Your task to perform on an android device: Add "asus zenbook" to the cart on amazon.com Image 0: 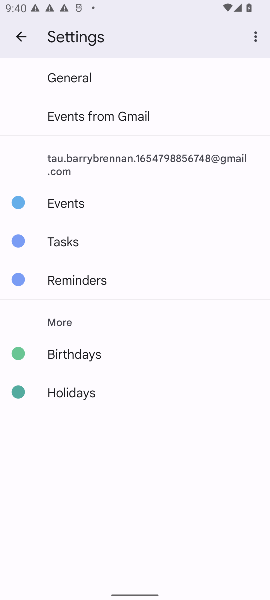
Step 0: press home button
Your task to perform on an android device: Add "asus zenbook" to the cart on amazon.com Image 1: 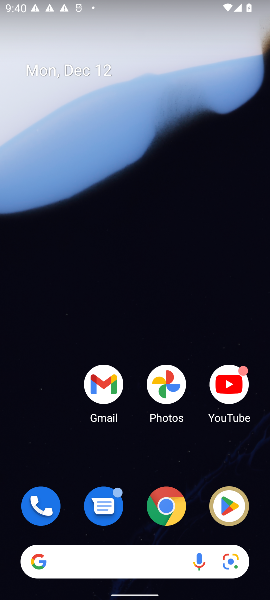
Step 1: click (164, 523)
Your task to perform on an android device: Add "asus zenbook" to the cart on amazon.com Image 2: 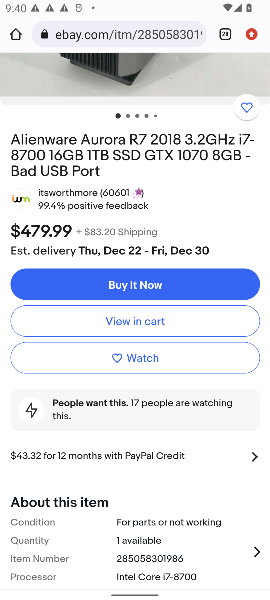
Step 2: press home button
Your task to perform on an android device: Add "asus zenbook" to the cart on amazon.com Image 3: 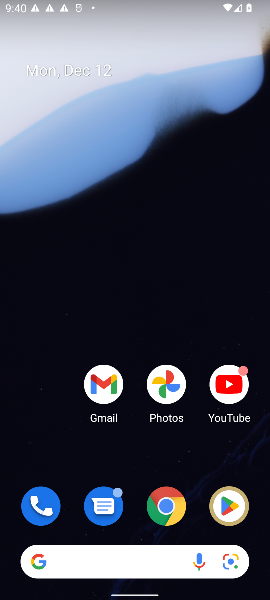
Step 3: click (160, 523)
Your task to perform on an android device: Add "asus zenbook" to the cart on amazon.com Image 4: 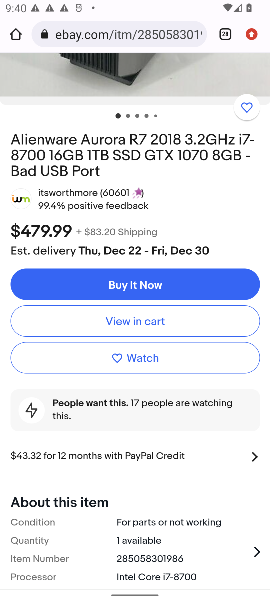
Step 4: click (144, 19)
Your task to perform on an android device: Add "asus zenbook" to the cart on amazon.com Image 5: 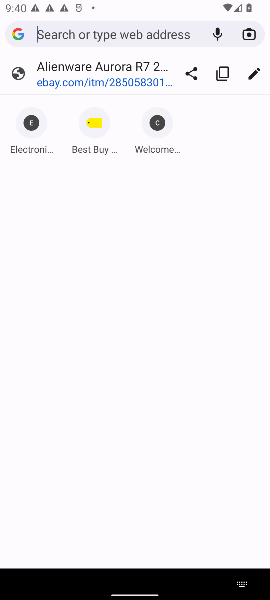
Step 5: type "asus zenbook"
Your task to perform on an android device: Add "asus zenbook" to the cart on amazon.com Image 6: 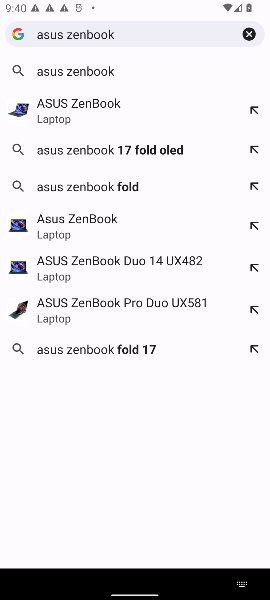
Step 6: click (249, 36)
Your task to perform on an android device: Add "asus zenbook" to the cart on amazon.com Image 7: 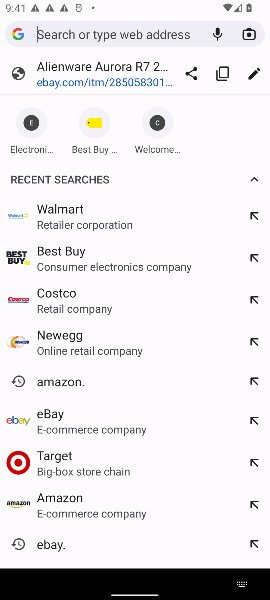
Step 7: press home button
Your task to perform on an android device: Add "asus zenbook" to the cart on amazon.com Image 8: 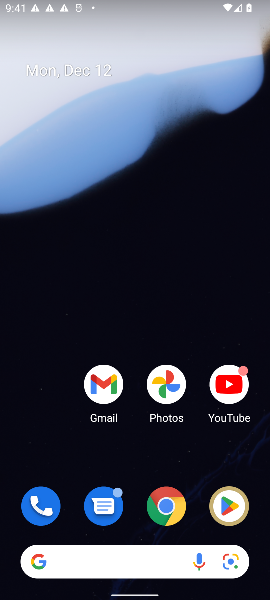
Step 8: click (121, 572)
Your task to perform on an android device: Add "asus zenbook" to the cart on amazon.com Image 9: 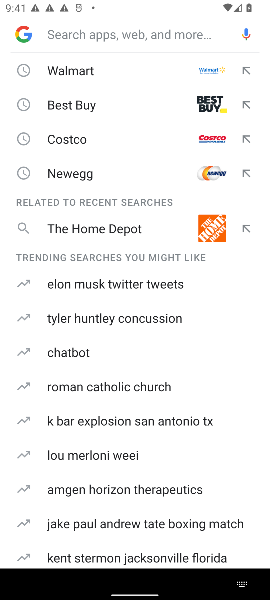
Step 9: type "amazon"
Your task to perform on an android device: Add "asus zenbook" to the cart on amazon.com Image 10: 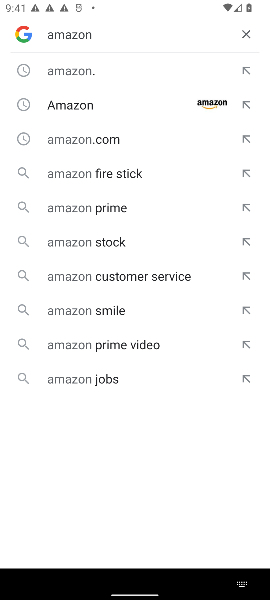
Step 10: click (97, 97)
Your task to perform on an android device: Add "asus zenbook" to the cart on amazon.com Image 11: 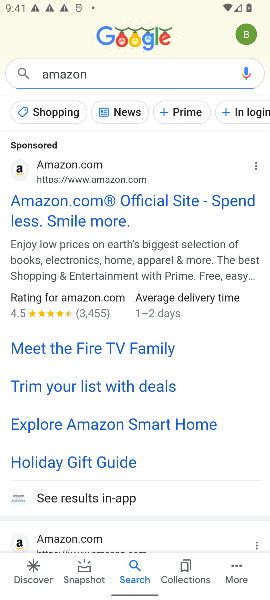
Step 11: click (65, 193)
Your task to perform on an android device: Add "asus zenbook" to the cart on amazon.com Image 12: 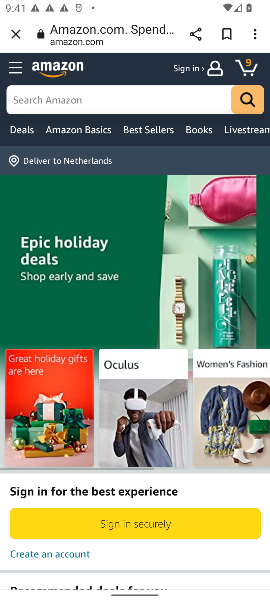
Step 12: click (124, 108)
Your task to perform on an android device: Add "asus zenbook" to the cart on amazon.com Image 13: 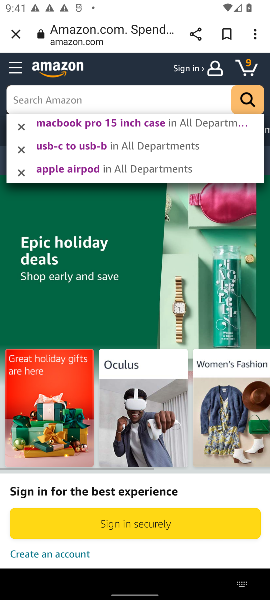
Step 13: type ""
Your task to perform on an android device: Add "asus zenbook" to the cart on amazon.com Image 14: 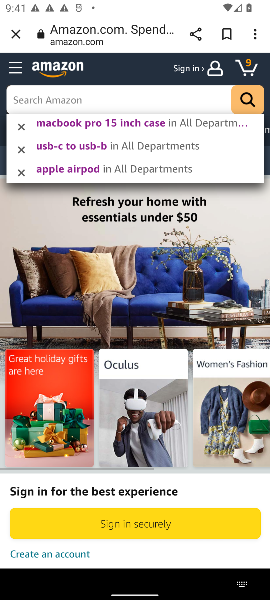
Step 14: type "asus zenbook"
Your task to perform on an android device: Add "asus zenbook" to the cart on amazon.com Image 15: 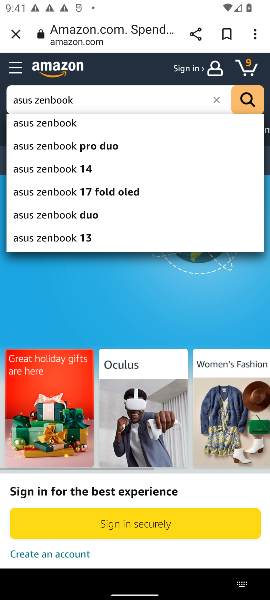
Step 15: click (90, 124)
Your task to perform on an android device: Add "asus zenbook" to the cart on amazon.com Image 16: 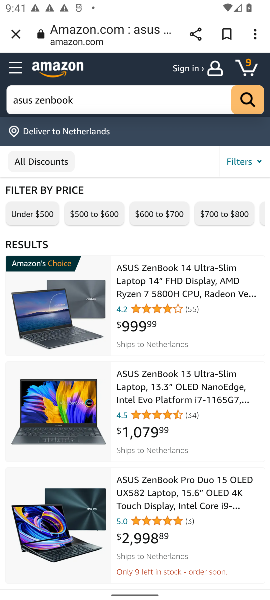
Step 16: click (145, 272)
Your task to perform on an android device: Add "asus zenbook" to the cart on amazon.com Image 17: 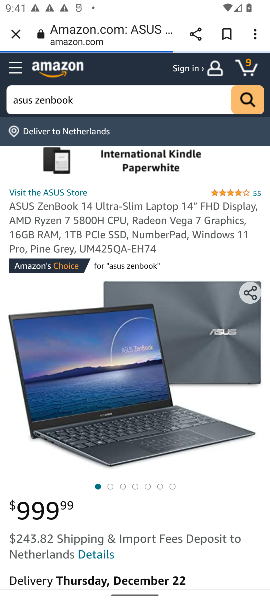
Step 17: drag from (137, 506) to (116, 177)
Your task to perform on an android device: Add "asus zenbook" to the cart on amazon.com Image 18: 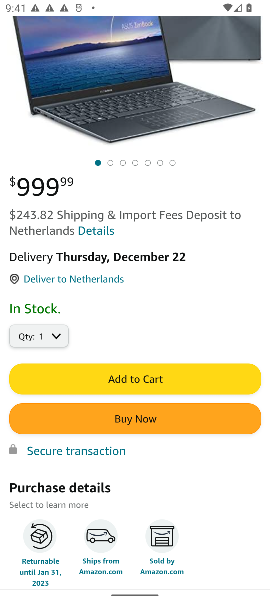
Step 18: click (123, 369)
Your task to perform on an android device: Add "asus zenbook" to the cart on amazon.com Image 19: 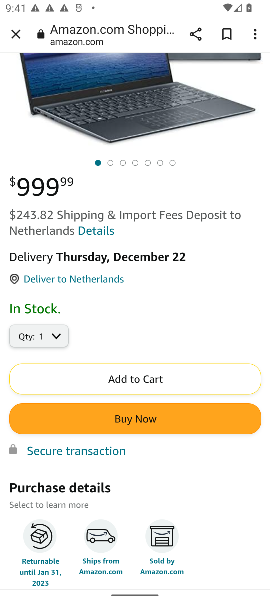
Step 19: task complete